Your task to perform on an android device: Check the news Image 0: 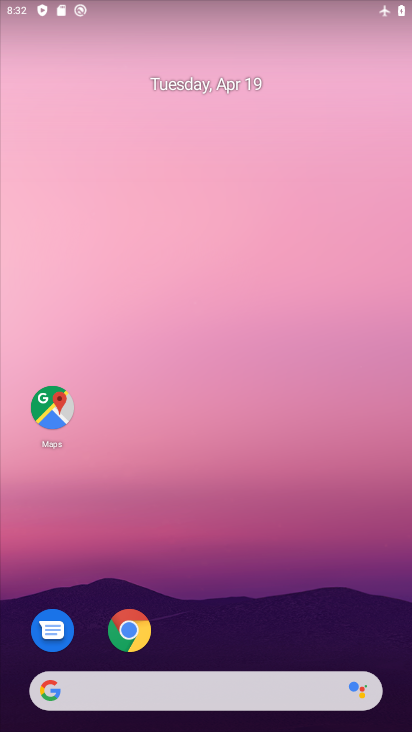
Step 0: drag from (188, 651) to (259, 91)
Your task to perform on an android device: Check the news Image 1: 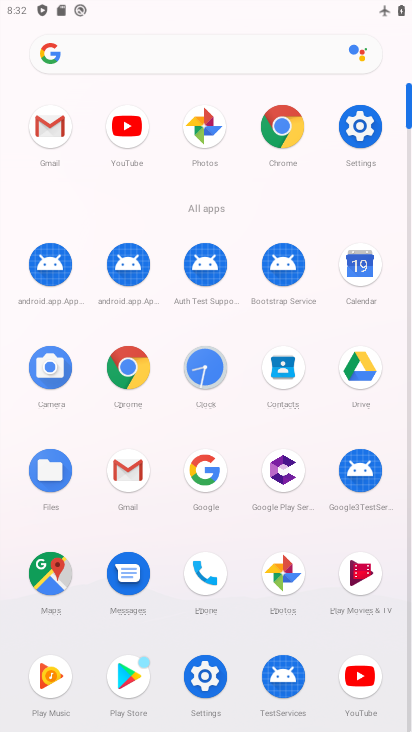
Step 1: click (203, 484)
Your task to perform on an android device: Check the news Image 2: 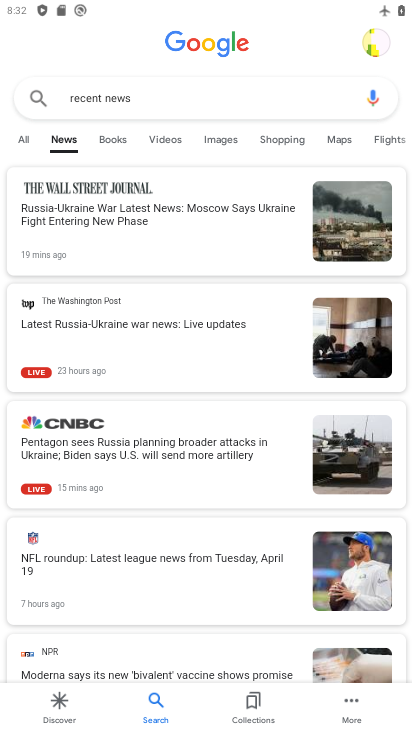
Step 2: task complete